Your task to perform on an android device: turn off picture-in-picture Image 0: 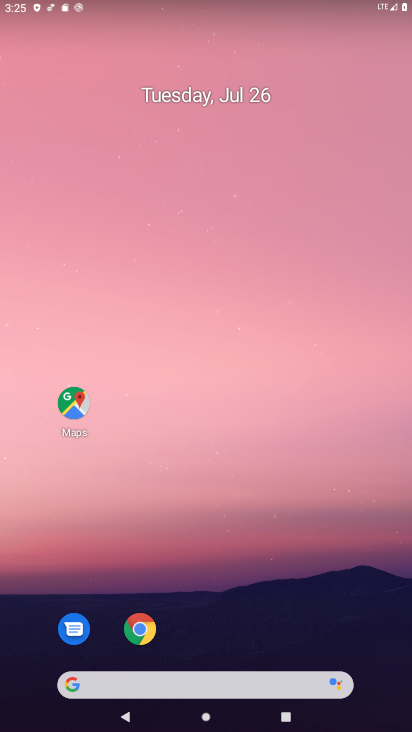
Step 0: drag from (238, 724) to (235, 159)
Your task to perform on an android device: turn off picture-in-picture Image 1: 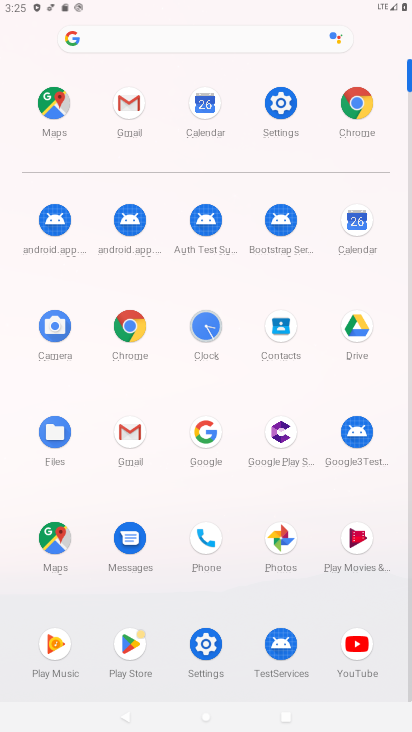
Step 1: click (283, 90)
Your task to perform on an android device: turn off picture-in-picture Image 2: 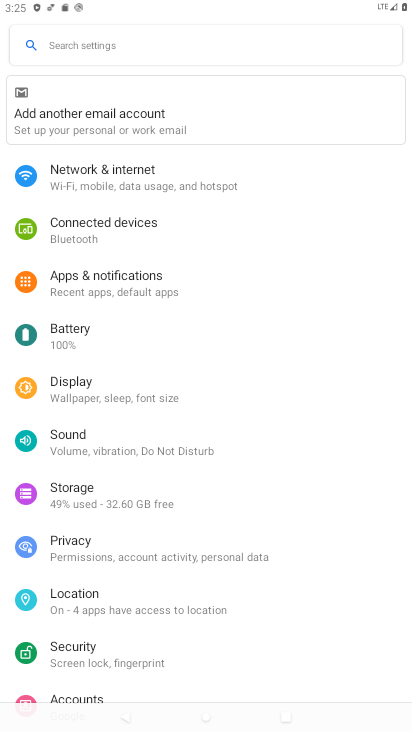
Step 2: click (133, 281)
Your task to perform on an android device: turn off picture-in-picture Image 3: 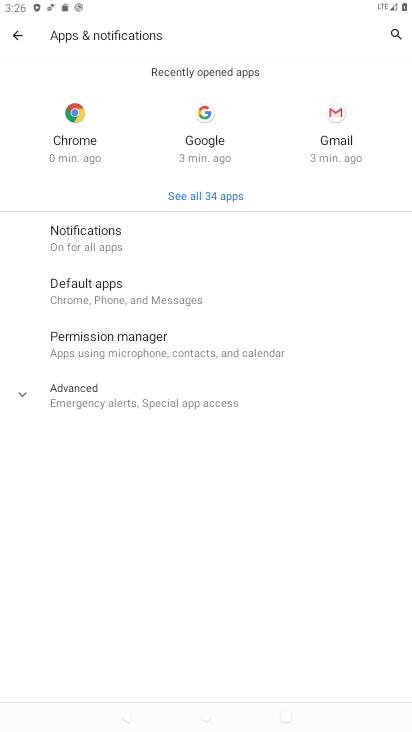
Step 3: click (90, 395)
Your task to perform on an android device: turn off picture-in-picture Image 4: 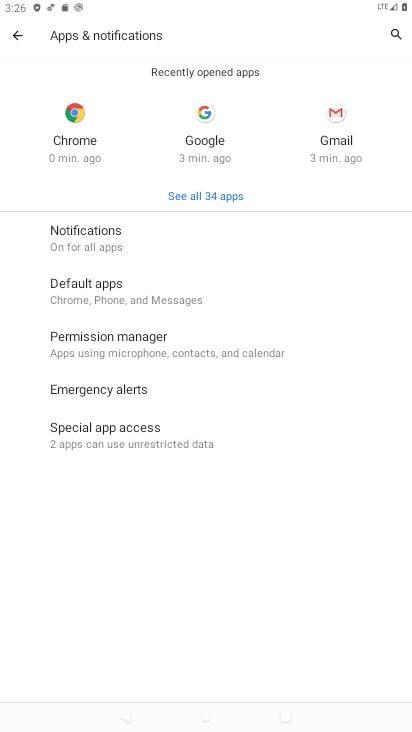
Step 4: click (130, 444)
Your task to perform on an android device: turn off picture-in-picture Image 5: 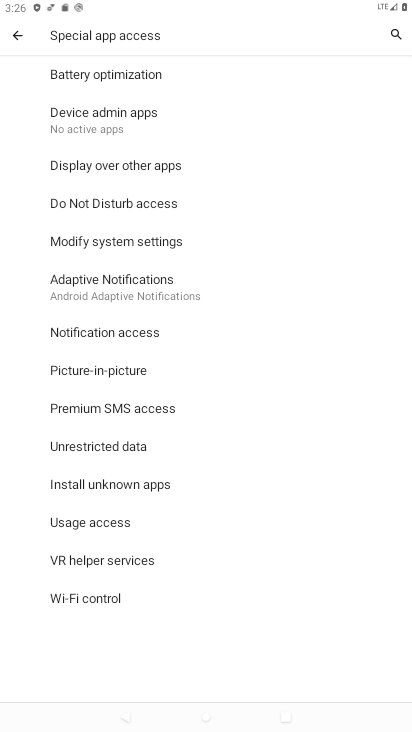
Step 5: click (86, 370)
Your task to perform on an android device: turn off picture-in-picture Image 6: 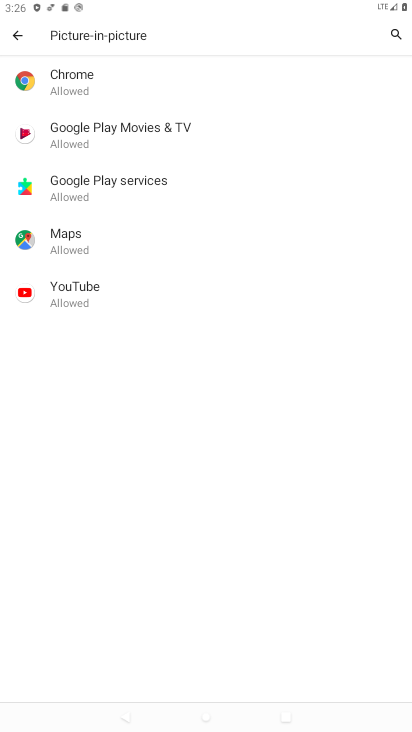
Step 6: click (76, 293)
Your task to perform on an android device: turn off picture-in-picture Image 7: 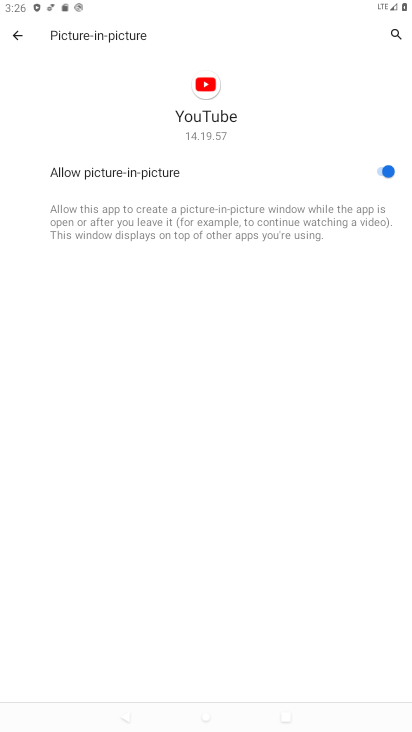
Step 7: click (386, 172)
Your task to perform on an android device: turn off picture-in-picture Image 8: 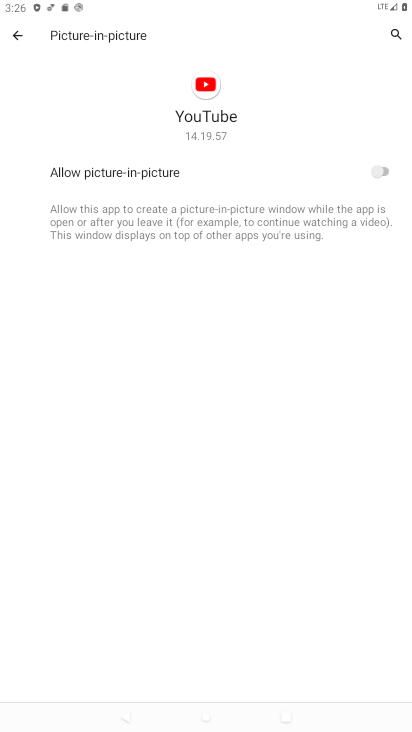
Step 8: task complete